Your task to perform on an android device: Open Yahoo.com Image 0: 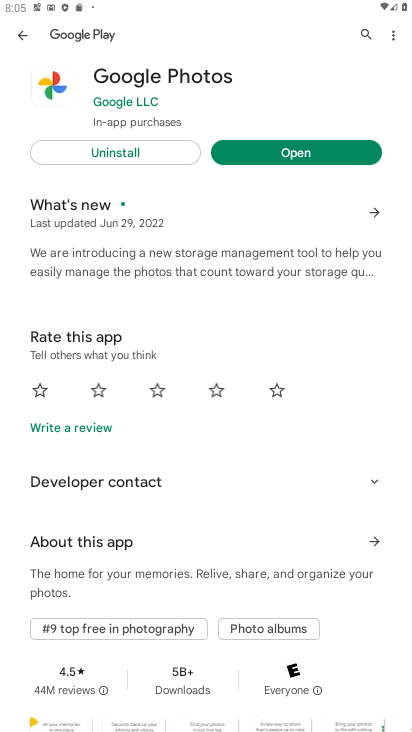
Step 0: press back button
Your task to perform on an android device: Open Yahoo.com Image 1: 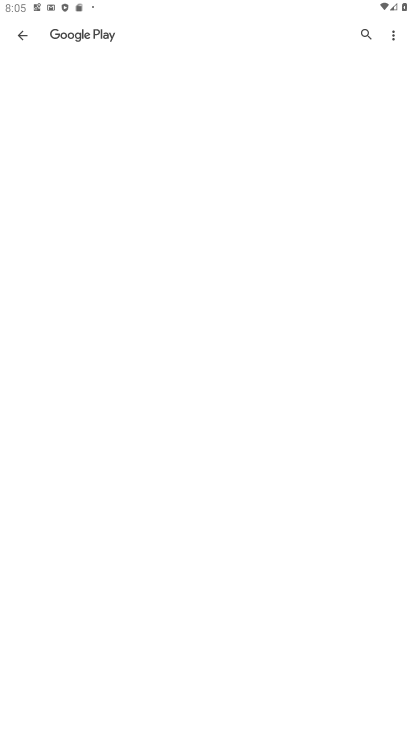
Step 1: press back button
Your task to perform on an android device: Open Yahoo.com Image 2: 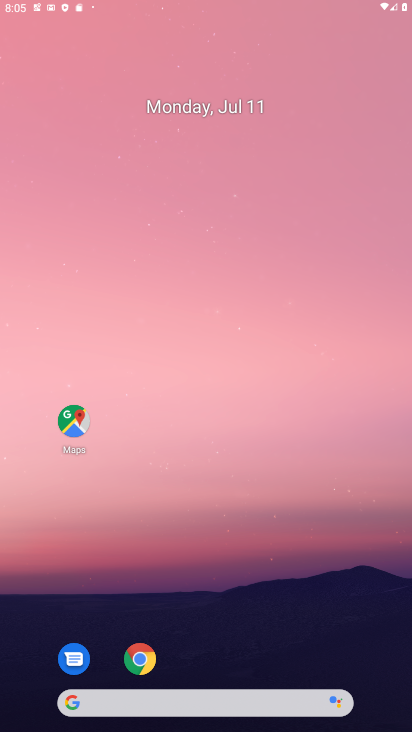
Step 2: press back button
Your task to perform on an android device: Open Yahoo.com Image 3: 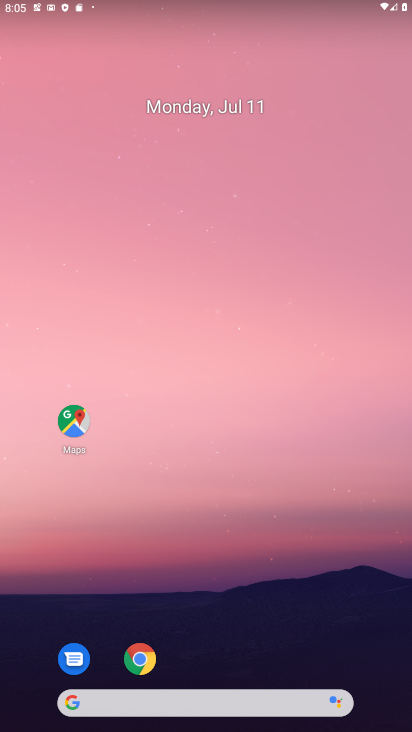
Step 3: drag from (212, 647) to (177, 442)
Your task to perform on an android device: Open Yahoo.com Image 4: 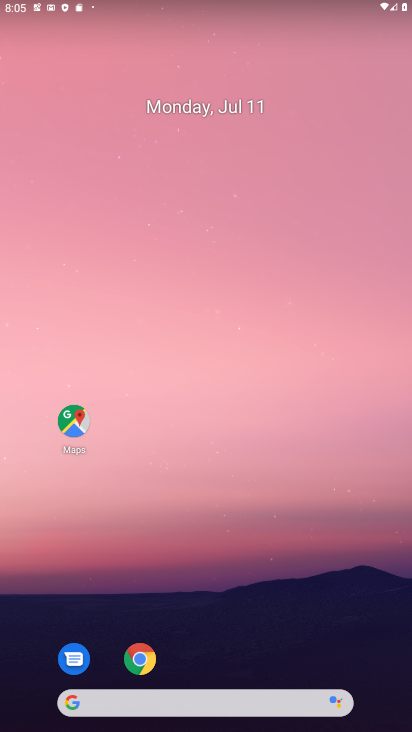
Step 4: drag from (186, 439) to (152, 240)
Your task to perform on an android device: Open Yahoo.com Image 5: 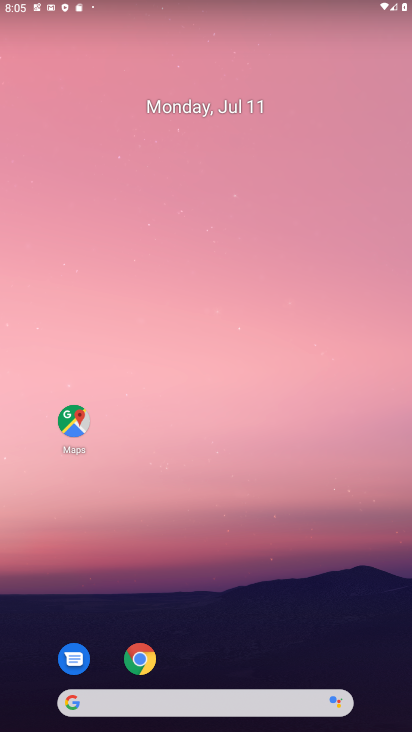
Step 5: click (225, 244)
Your task to perform on an android device: Open Yahoo.com Image 6: 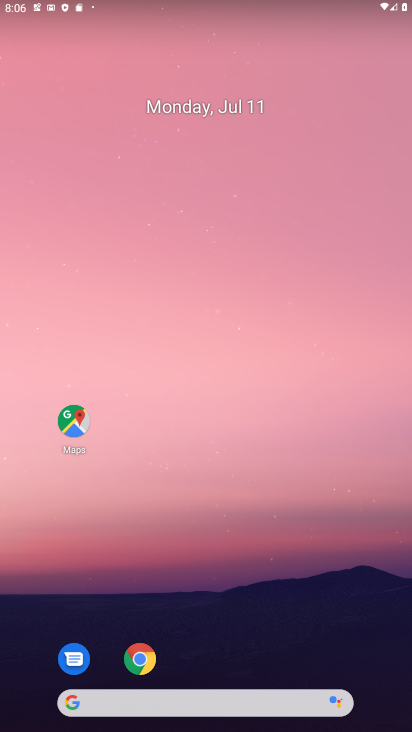
Step 6: drag from (247, 696) to (277, 215)
Your task to perform on an android device: Open Yahoo.com Image 7: 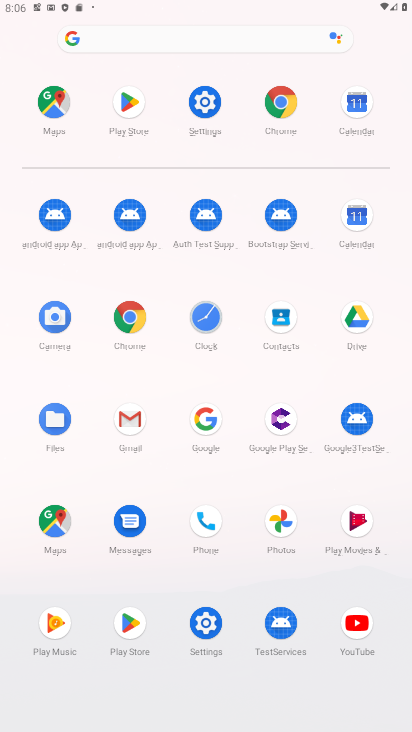
Step 7: drag from (195, 499) to (156, 175)
Your task to perform on an android device: Open Yahoo.com Image 8: 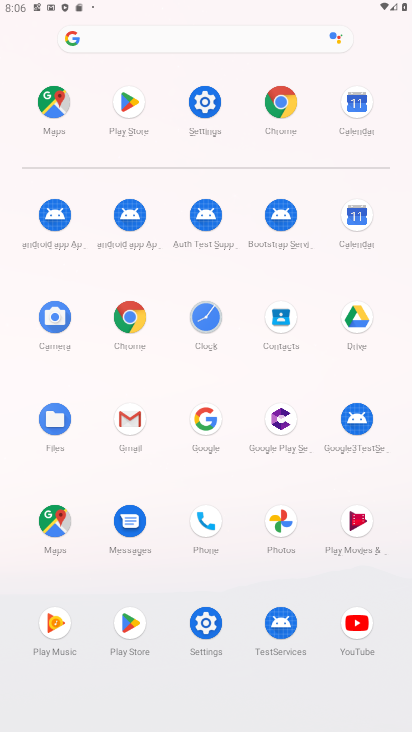
Step 8: click (131, 325)
Your task to perform on an android device: Open Yahoo.com Image 9: 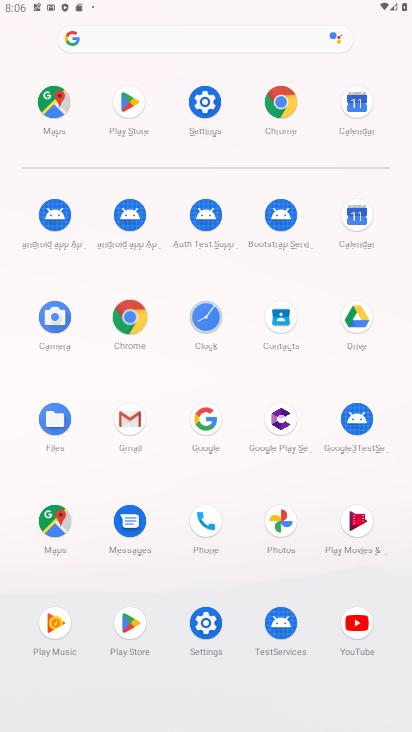
Step 9: click (131, 325)
Your task to perform on an android device: Open Yahoo.com Image 10: 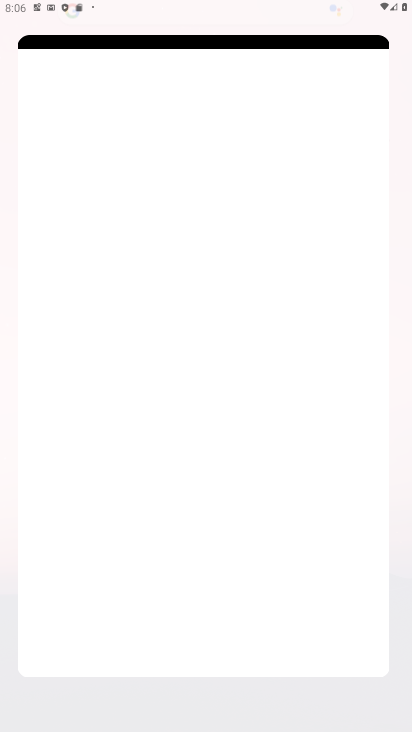
Step 10: click (130, 326)
Your task to perform on an android device: Open Yahoo.com Image 11: 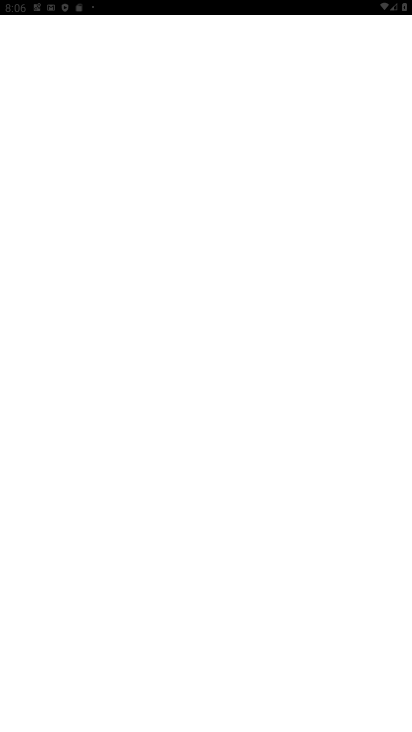
Step 11: click (130, 326)
Your task to perform on an android device: Open Yahoo.com Image 12: 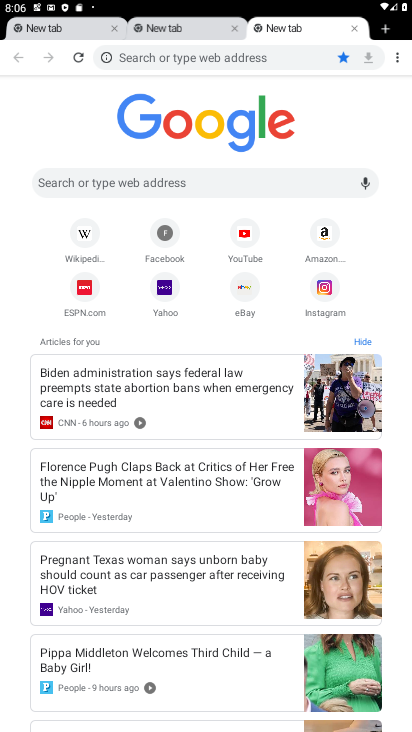
Step 12: click (164, 284)
Your task to perform on an android device: Open Yahoo.com Image 13: 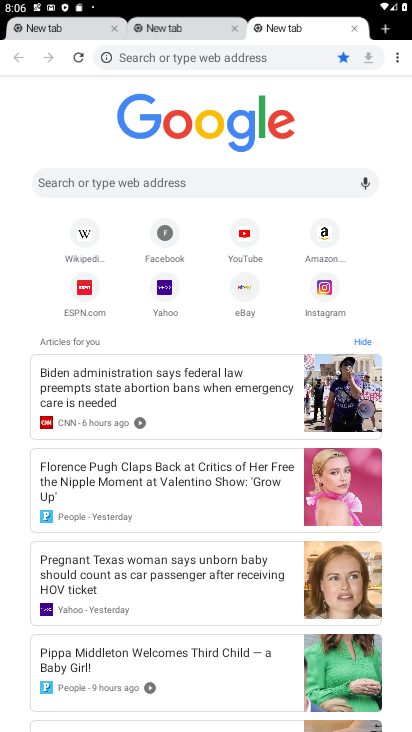
Step 13: click (168, 282)
Your task to perform on an android device: Open Yahoo.com Image 14: 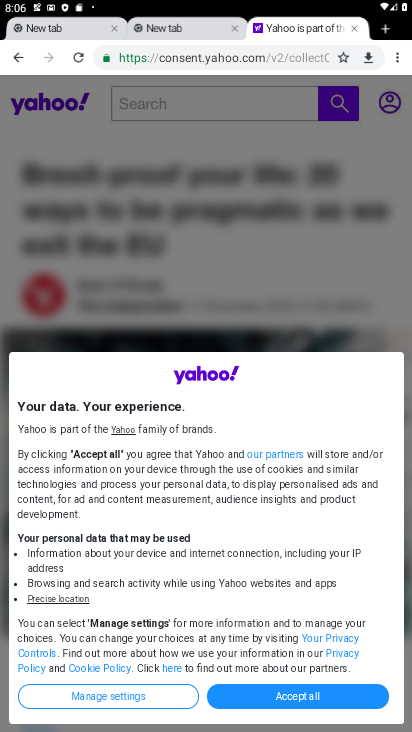
Step 14: task complete